Your task to perform on an android device: turn on the 24-hour format for clock Image 0: 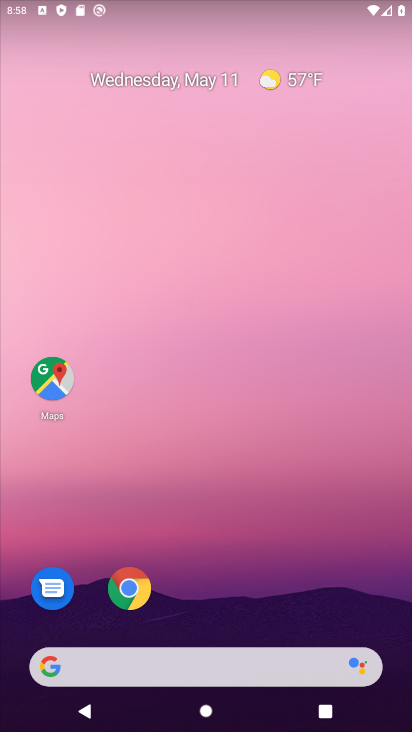
Step 0: drag from (271, 683) to (271, 89)
Your task to perform on an android device: turn on the 24-hour format for clock Image 1: 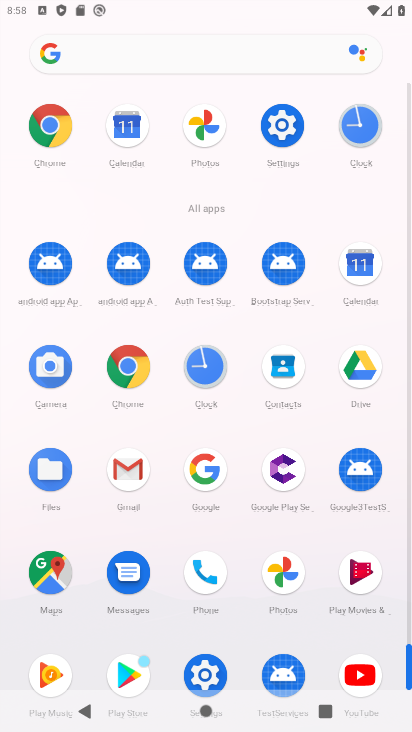
Step 1: click (379, 111)
Your task to perform on an android device: turn on the 24-hour format for clock Image 2: 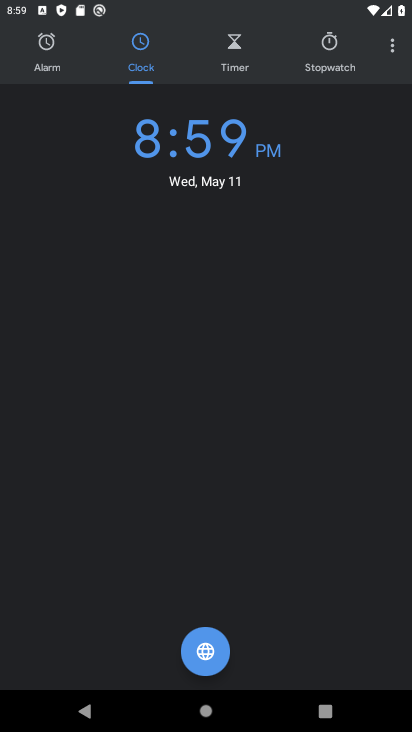
Step 2: click (391, 39)
Your task to perform on an android device: turn on the 24-hour format for clock Image 3: 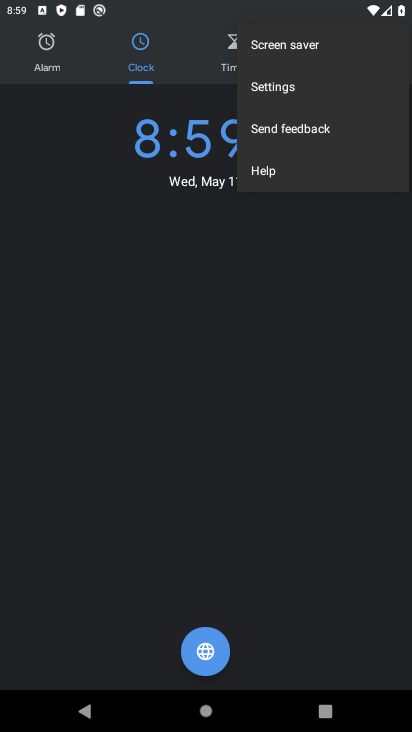
Step 3: click (311, 86)
Your task to perform on an android device: turn on the 24-hour format for clock Image 4: 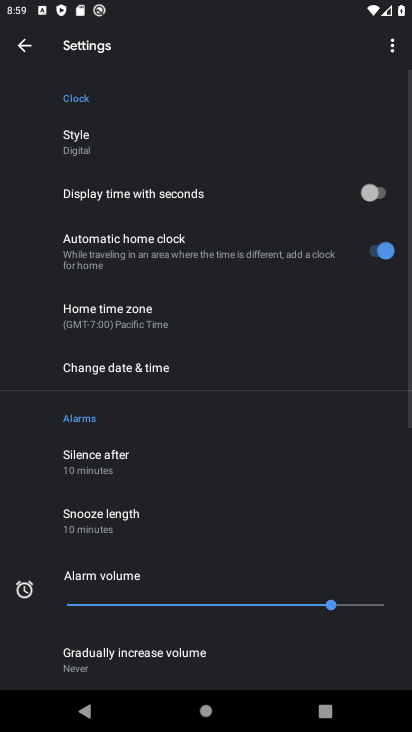
Step 4: click (179, 374)
Your task to perform on an android device: turn on the 24-hour format for clock Image 5: 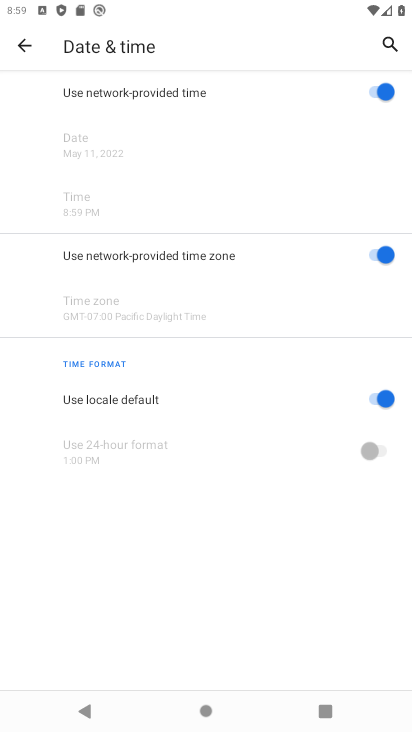
Step 5: click (389, 401)
Your task to perform on an android device: turn on the 24-hour format for clock Image 6: 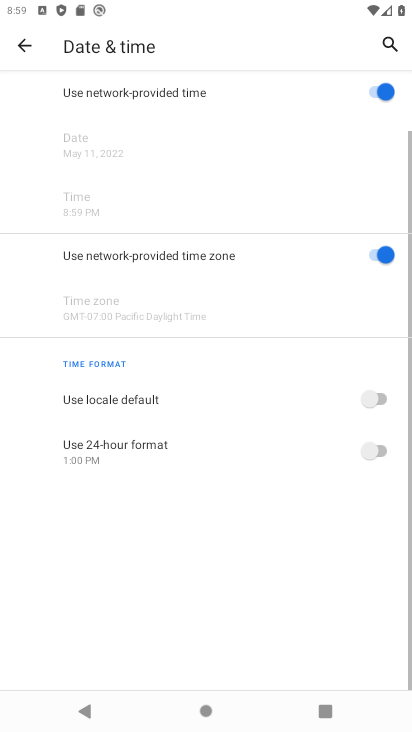
Step 6: click (377, 454)
Your task to perform on an android device: turn on the 24-hour format for clock Image 7: 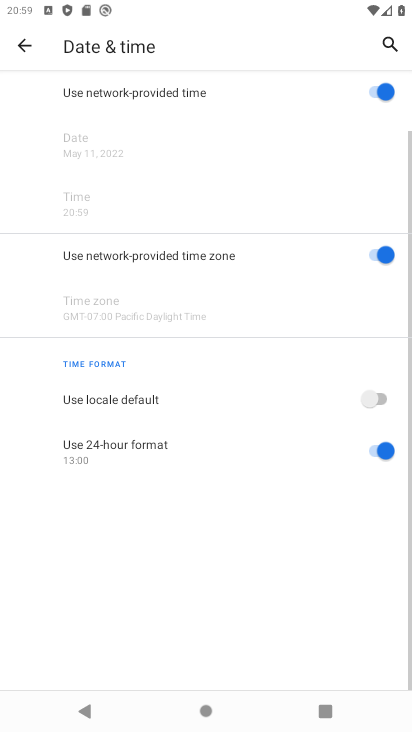
Step 7: task complete